Your task to perform on an android device: turn on airplane mode Image 0: 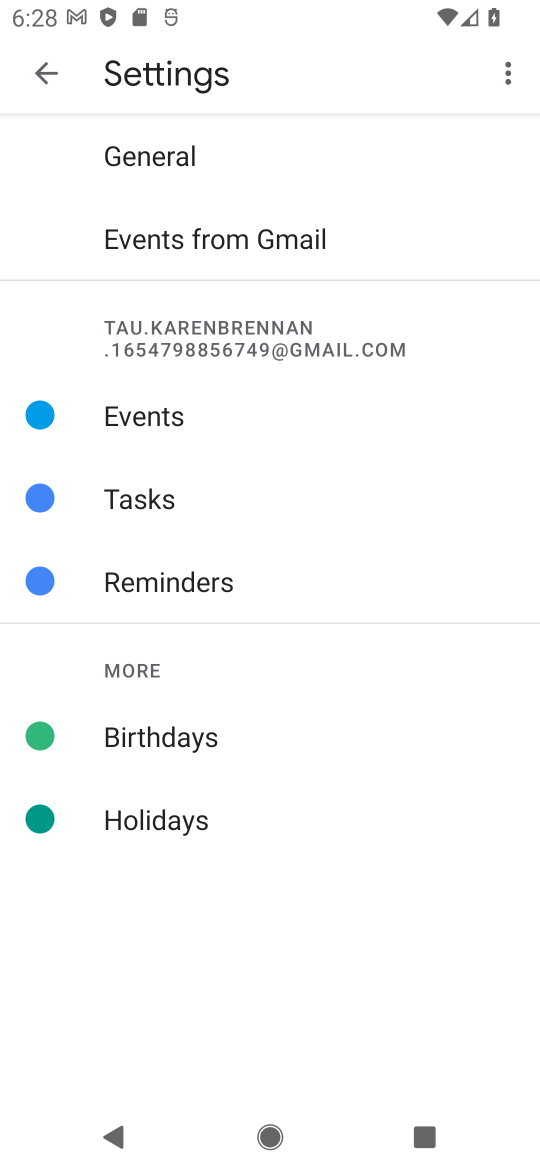
Step 0: press home button
Your task to perform on an android device: turn on airplane mode Image 1: 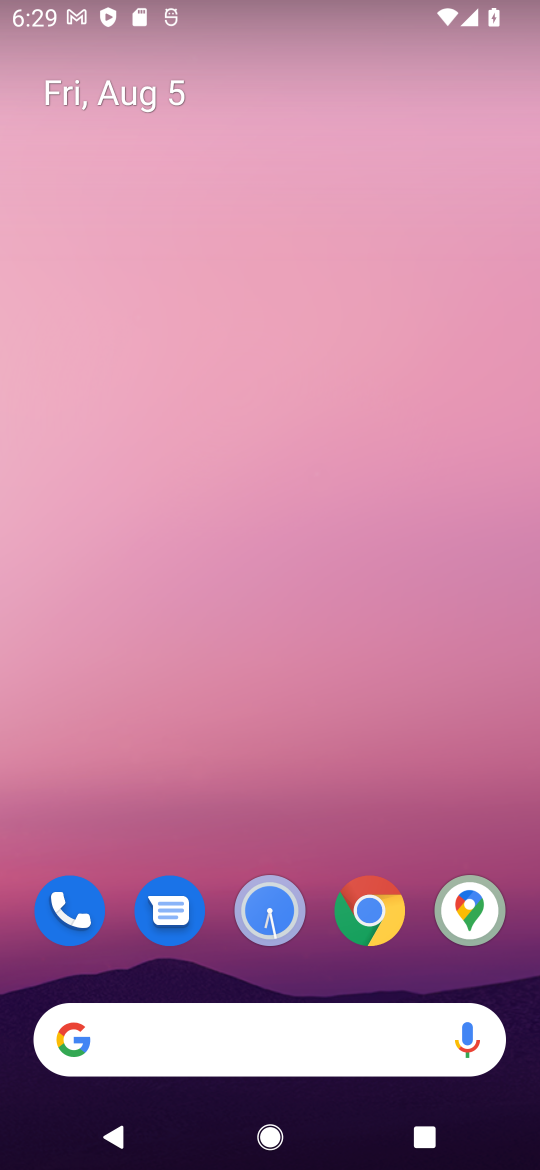
Step 1: drag from (247, 1035) to (248, 0)
Your task to perform on an android device: turn on airplane mode Image 2: 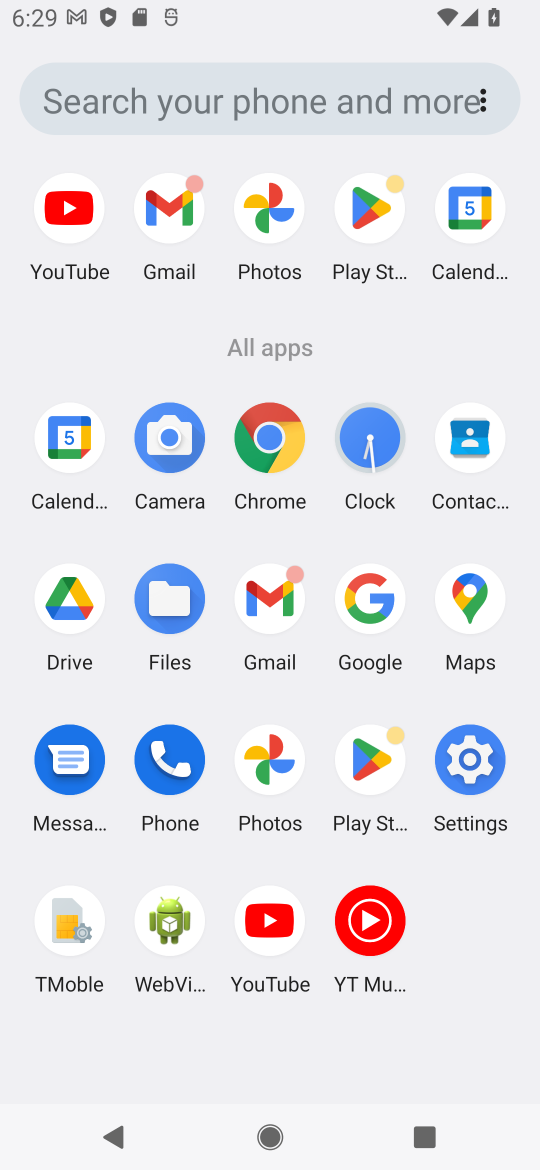
Step 2: click (482, 773)
Your task to perform on an android device: turn on airplane mode Image 3: 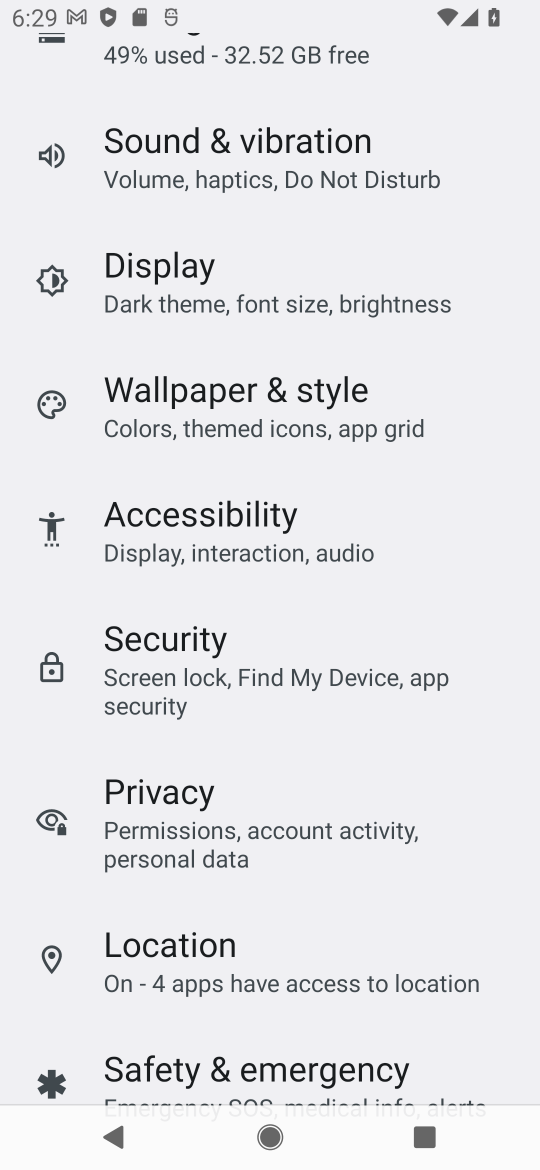
Step 3: drag from (341, 261) to (410, 867)
Your task to perform on an android device: turn on airplane mode Image 4: 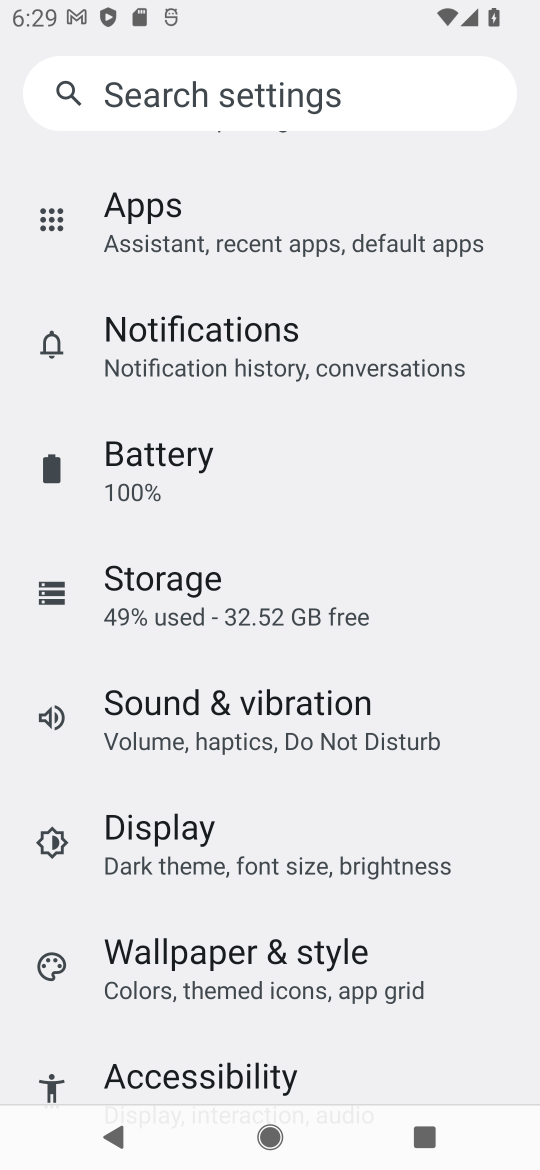
Step 4: drag from (410, 358) to (444, 920)
Your task to perform on an android device: turn on airplane mode Image 5: 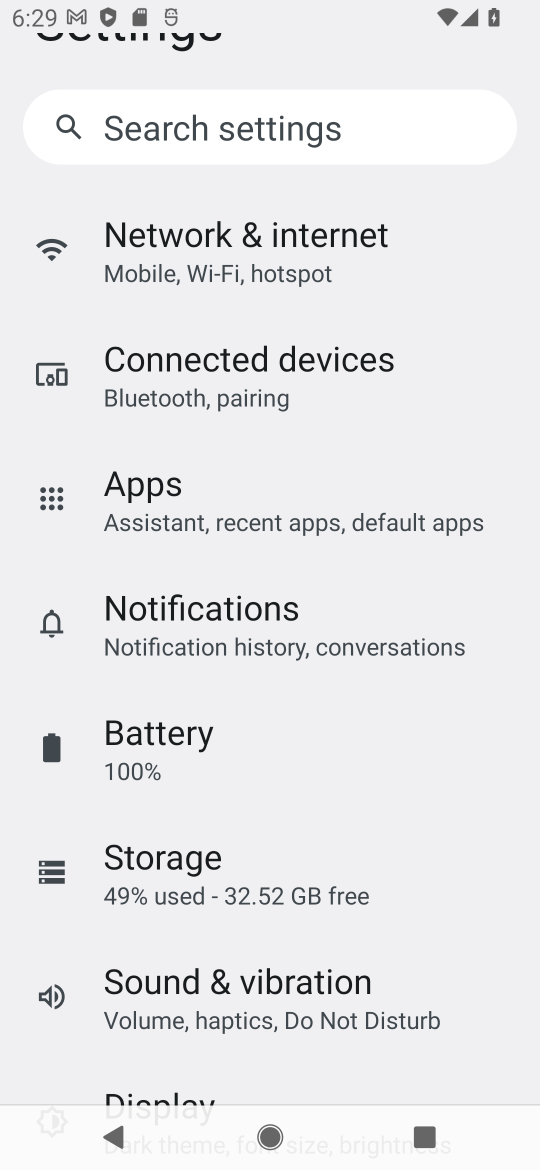
Step 5: drag from (421, 322) to (460, 921)
Your task to perform on an android device: turn on airplane mode Image 6: 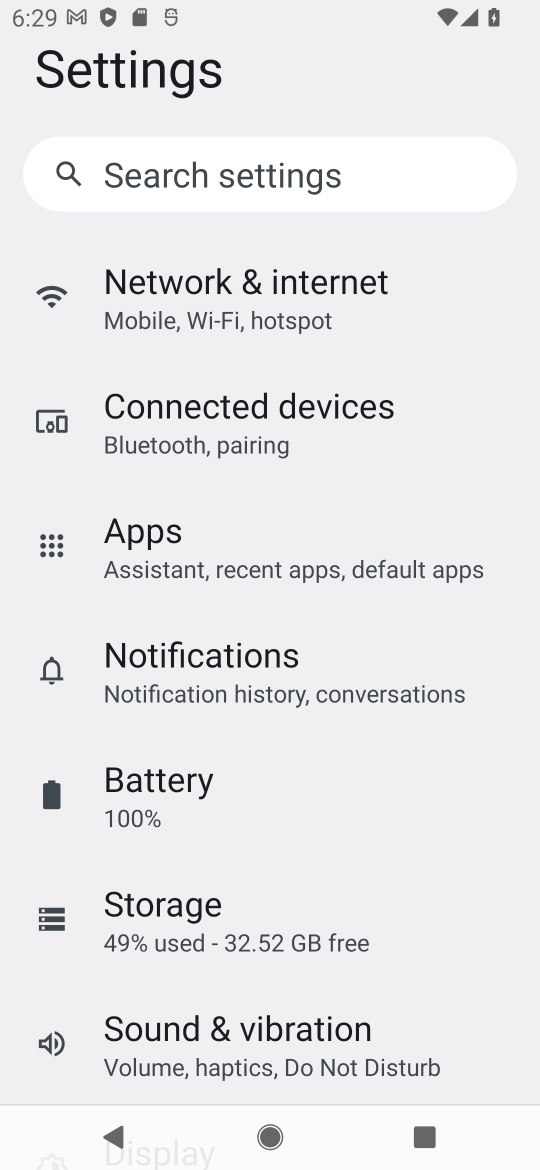
Step 6: click (261, 305)
Your task to perform on an android device: turn on airplane mode Image 7: 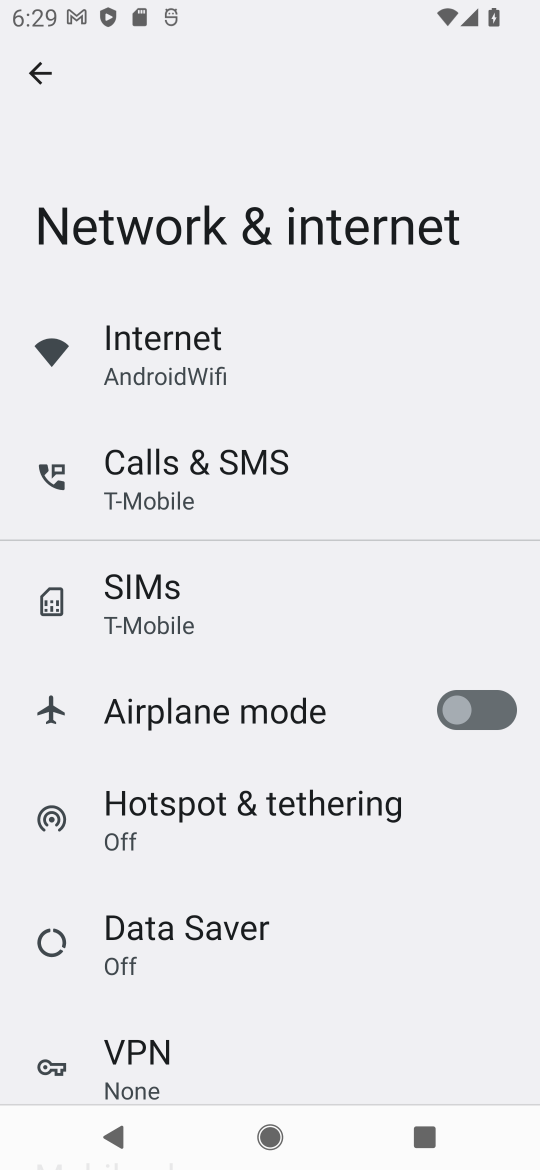
Step 7: click (504, 711)
Your task to perform on an android device: turn on airplane mode Image 8: 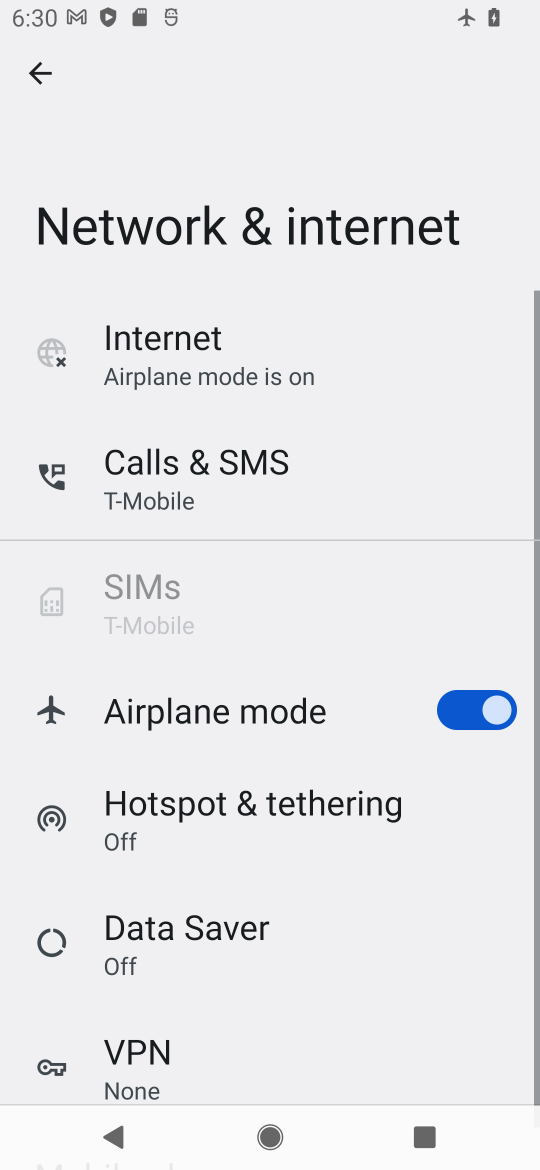
Step 8: task complete